Your task to perform on an android device: Search for seafood restaurants on Google Maps Image 0: 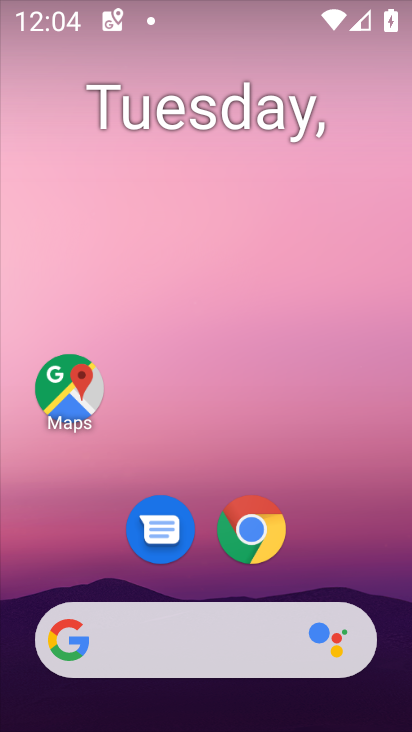
Step 0: press home button
Your task to perform on an android device: Search for seafood restaurants on Google Maps Image 1: 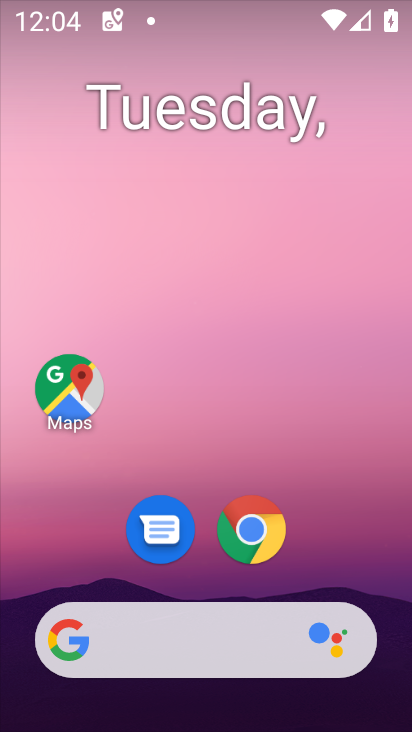
Step 1: click (78, 402)
Your task to perform on an android device: Search for seafood restaurants on Google Maps Image 2: 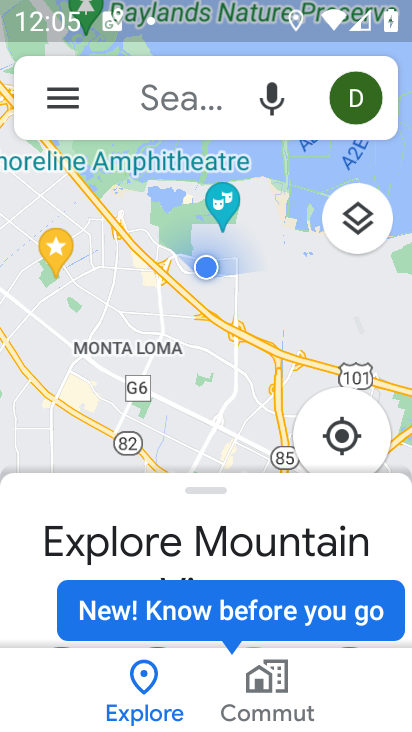
Step 2: click (186, 95)
Your task to perform on an android device: Search for seafood restaurants on Google Maps Image 3: 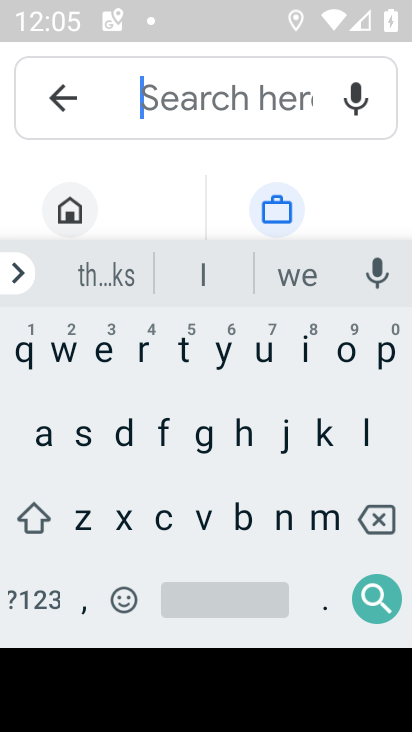
Step 3: click (82, 432)
Your task to perform on an android device: Search for seafood restaurants on Google Maps Image 4: 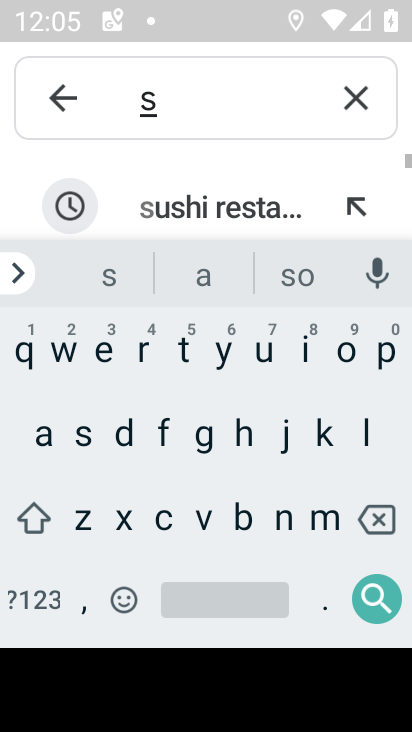
Step 4: click (100, 344)
Your task to perform on an android device: Search for seafood restaurants on Google Maps Image 5: 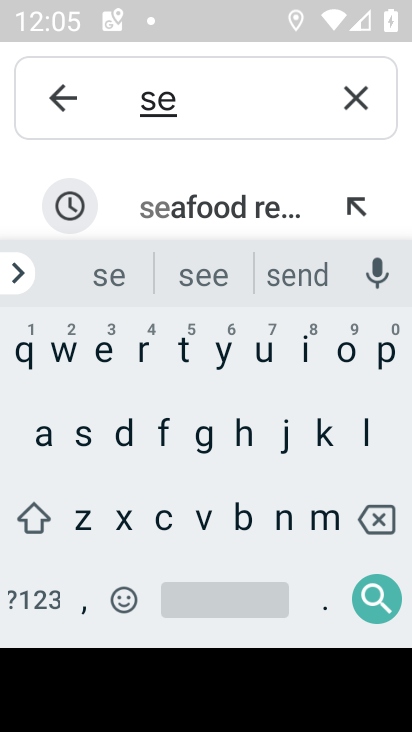
Step 5: click (185, 205)
Your task to perform on an android device: Search for seafood restaurants on Google Maps Image 6: 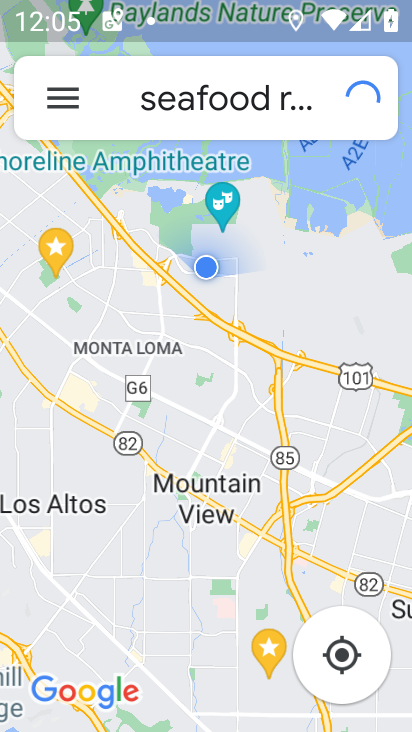
Step 6: task complete